Your task to perform on an android device: Go to Amazon Image 0: 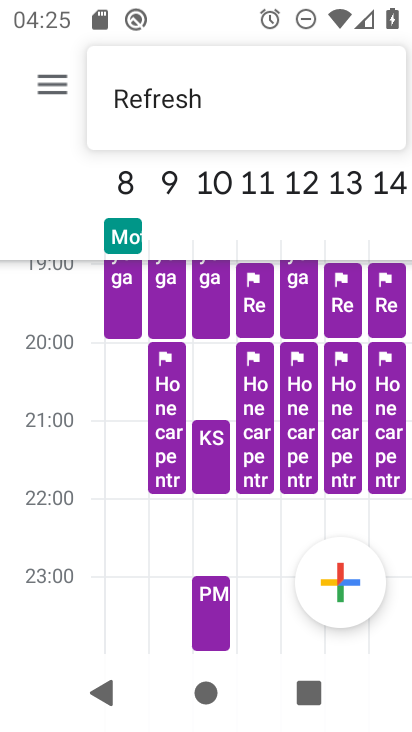
Step 0: press home button
Your task to perform on an android device: Go to Amazon Image 1: 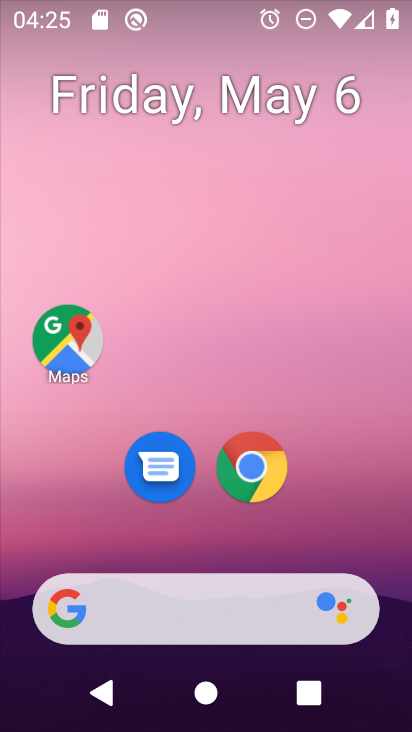
Step 1: click (272, 491)
Your task to perform on an android device: Go to Amazon Image 2: 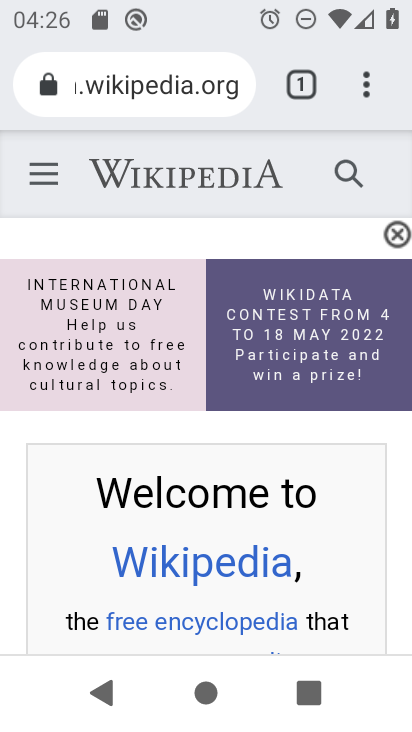
Step 2: press back button
Your task to perform on an android device: Go to Amazon Image 3: 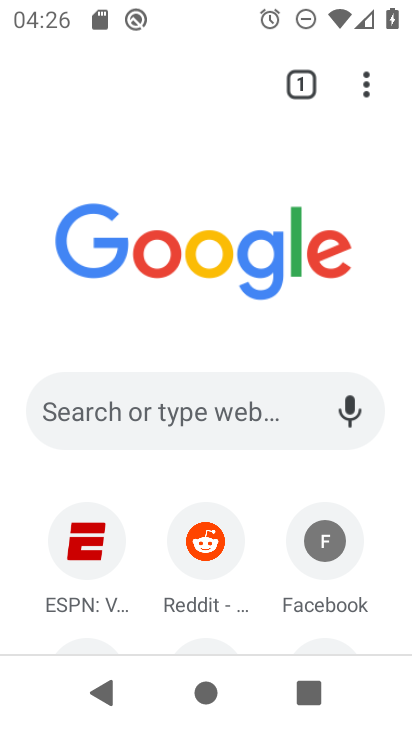
Step 3: drag from (313, 527) to (334, 284)
Your task to perform on an android device: Go to Amazon Image 4: 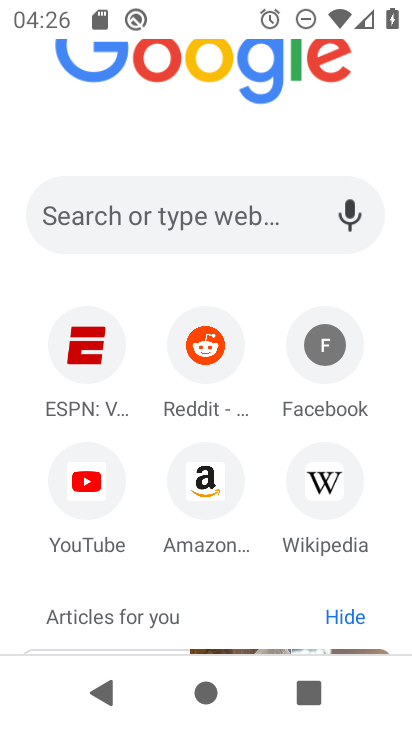
Step 4: click (207, 473)
Your task to perform on an android device: Go to Amazon Image 5: 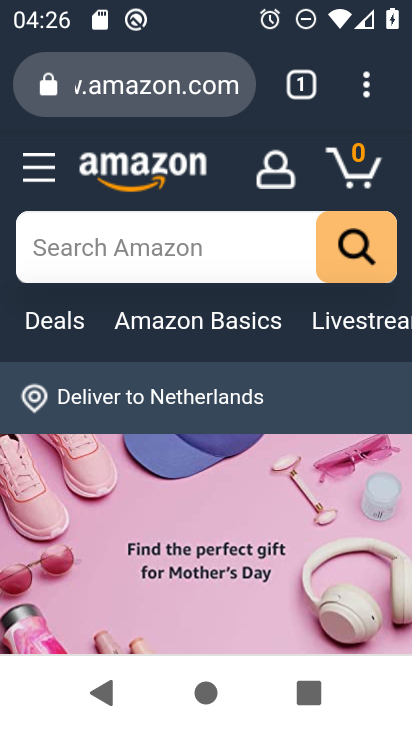
Step 5: task complete